Your task to perform on an android device: Set the phone to "Do not disturb". Image 0: 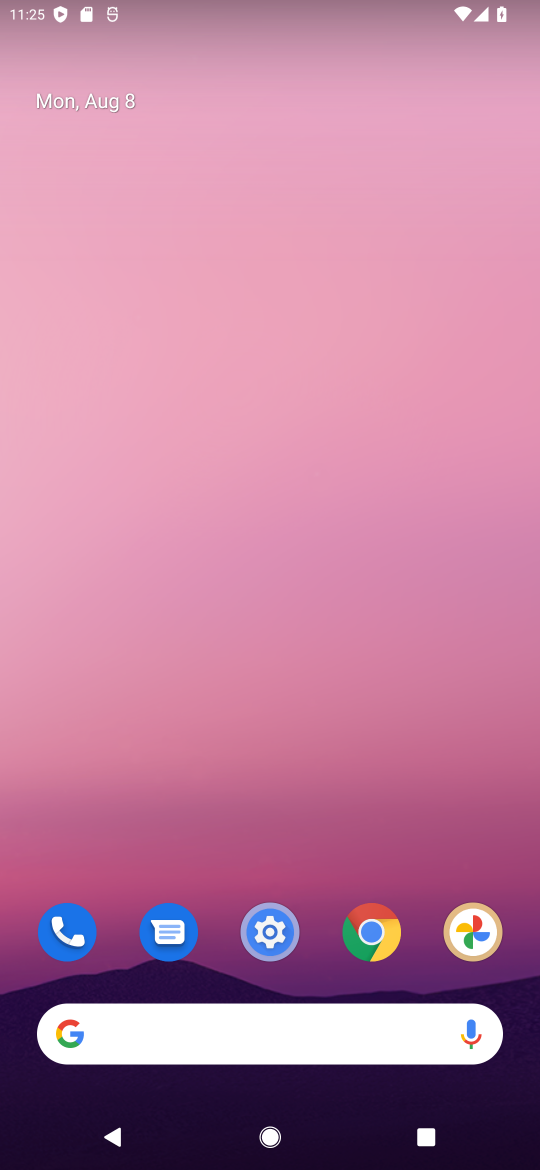
Step 0: drag from (225, 464) to (233, 699)
Your task to perform on an android device: Set the phone to "Do not disturb". Image 1: 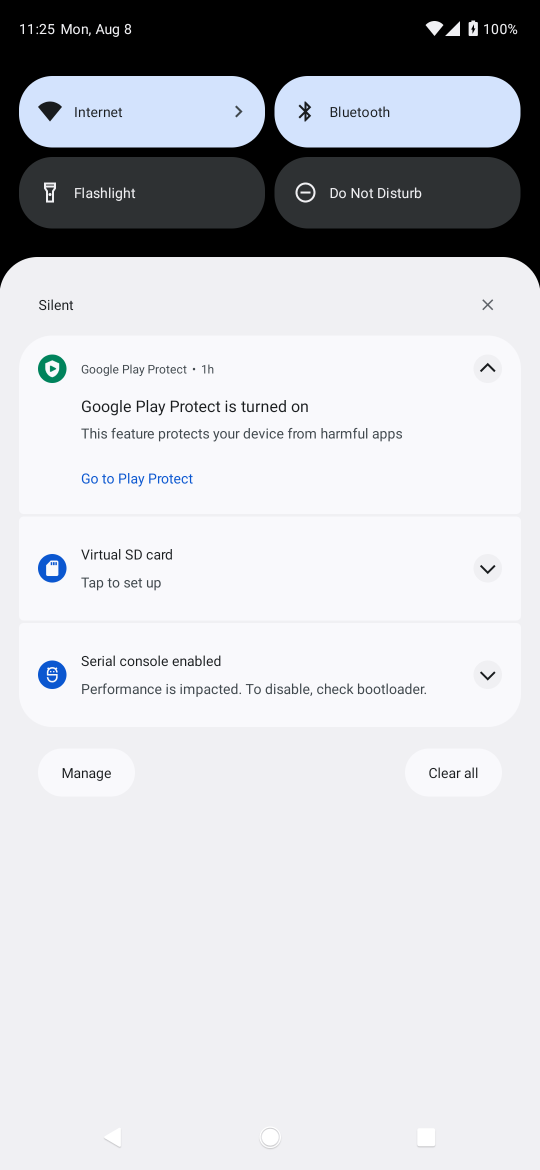
Step 1: click (395, 188)
Your task to perform on an android device: Set the phone to "Do not disturb". Image 2: 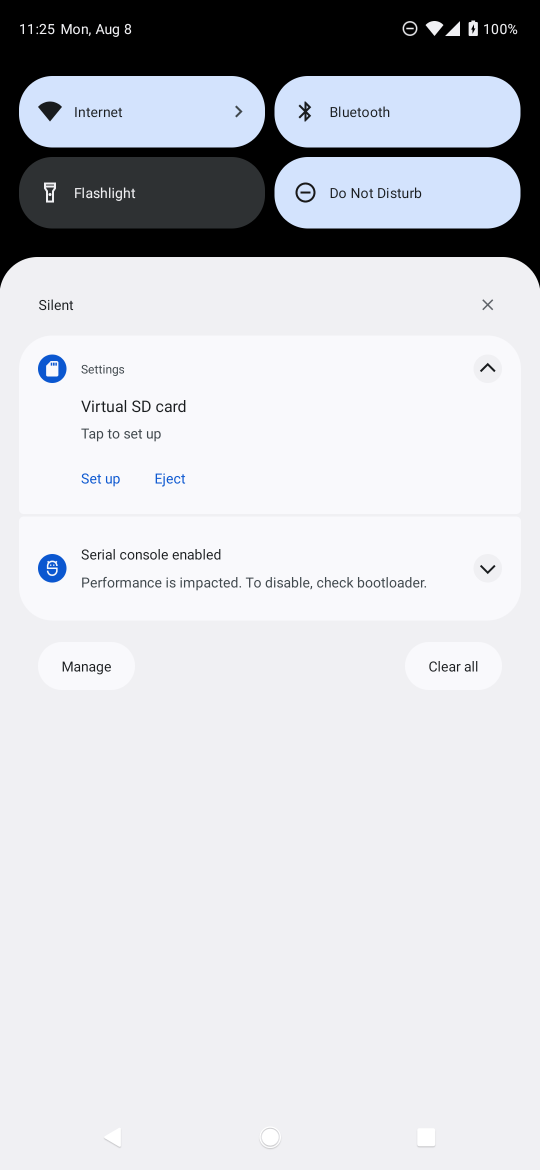
Step 2: task complete